Your task to perform on an android device: install app "Truecaller" Image 0: 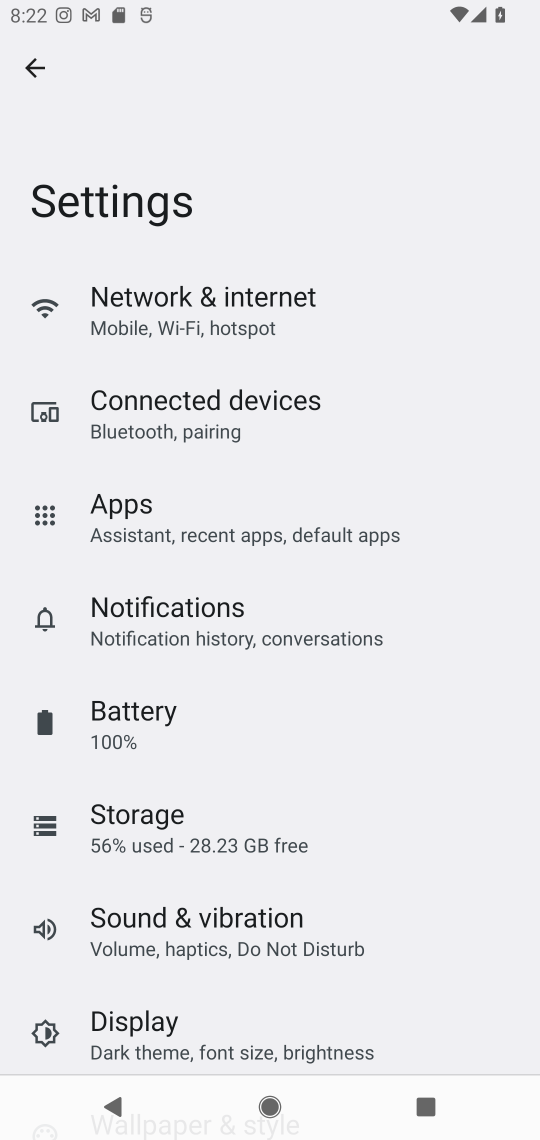
Step 0: press home button
Your task to perform on an android device: install app "Truecaller" Image 1: 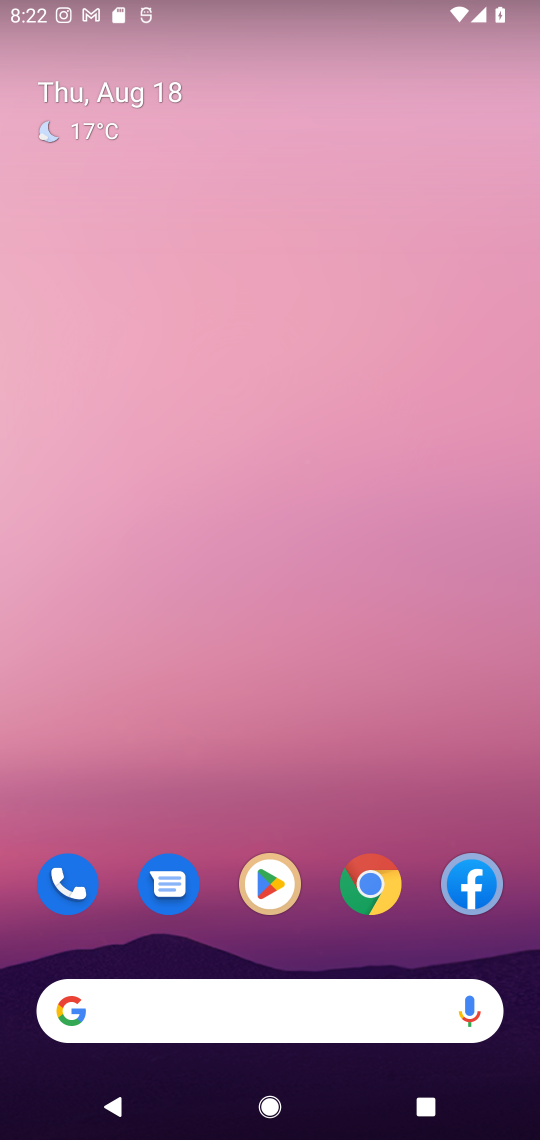
Step 1: drag from (264, 1014) to (273, 92)
Your task to perform on an android device: install app "Truecaller" Image 2: 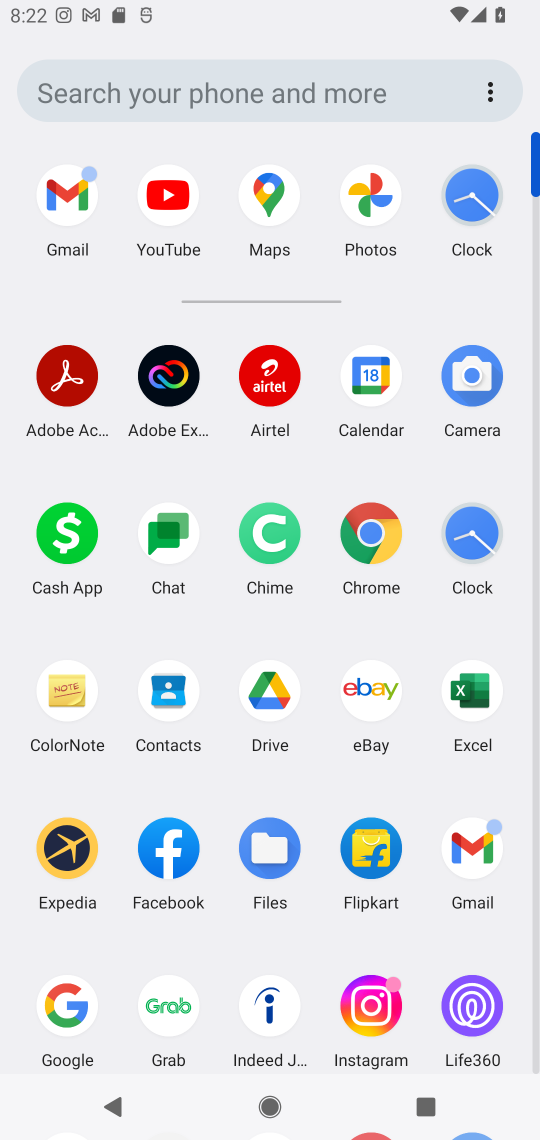
Step 2: drag from (304, 941) to (282, 294)
Your task to perform on an android device: install app "Truecaller" Image 3: 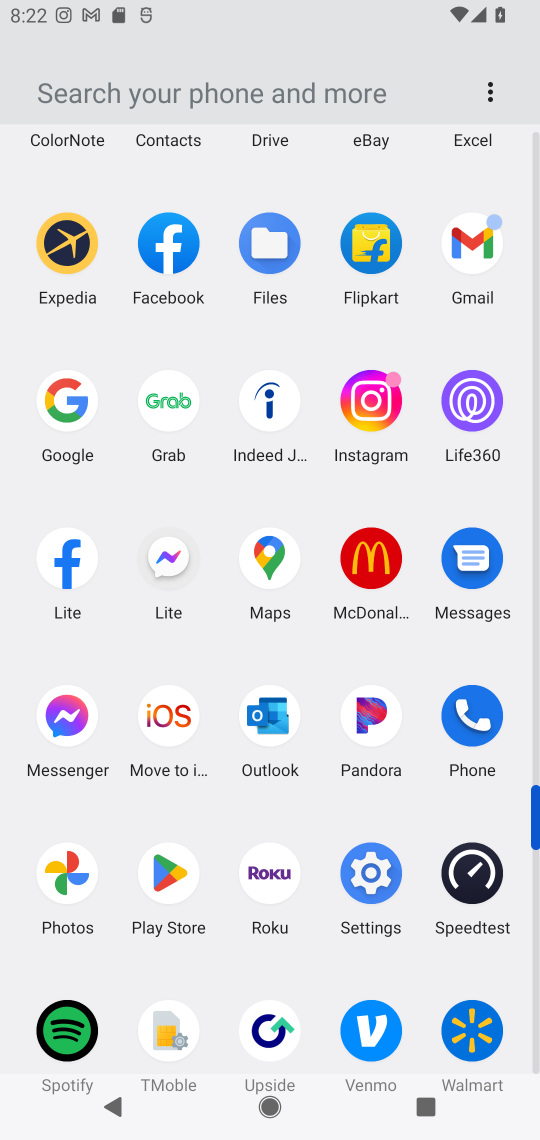
Step 3: click (180, 885)
Your task to perform on an android device: install app "Truecaller" Image 4: 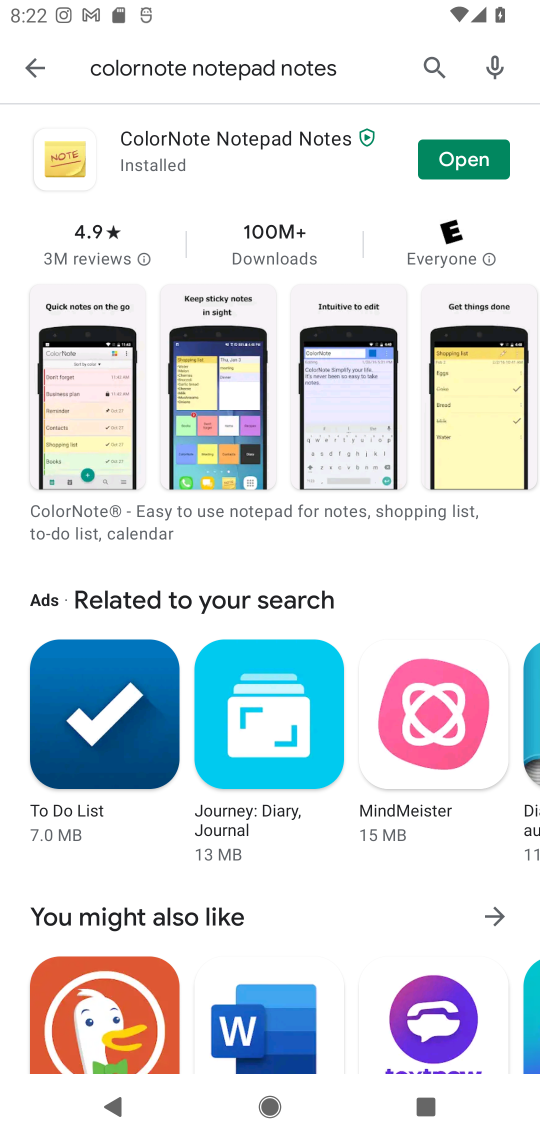
Step 4: press back button
Your task to perform on an android device: install app "Truecaller" Image 5: 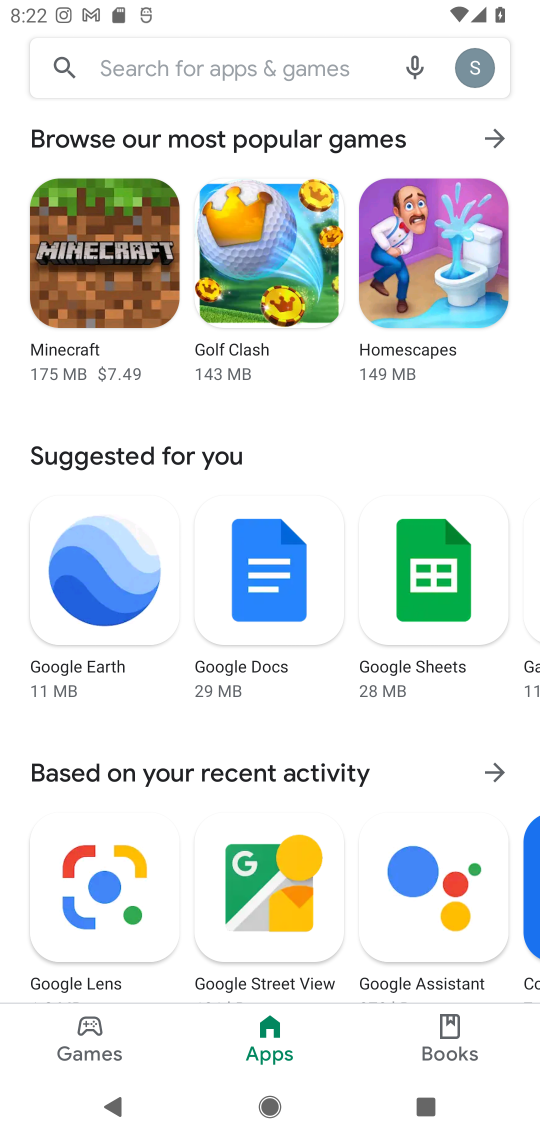
Step 5: click (271, 81)
Your task to perform on an android device: install app "Truecaller" Image 6: 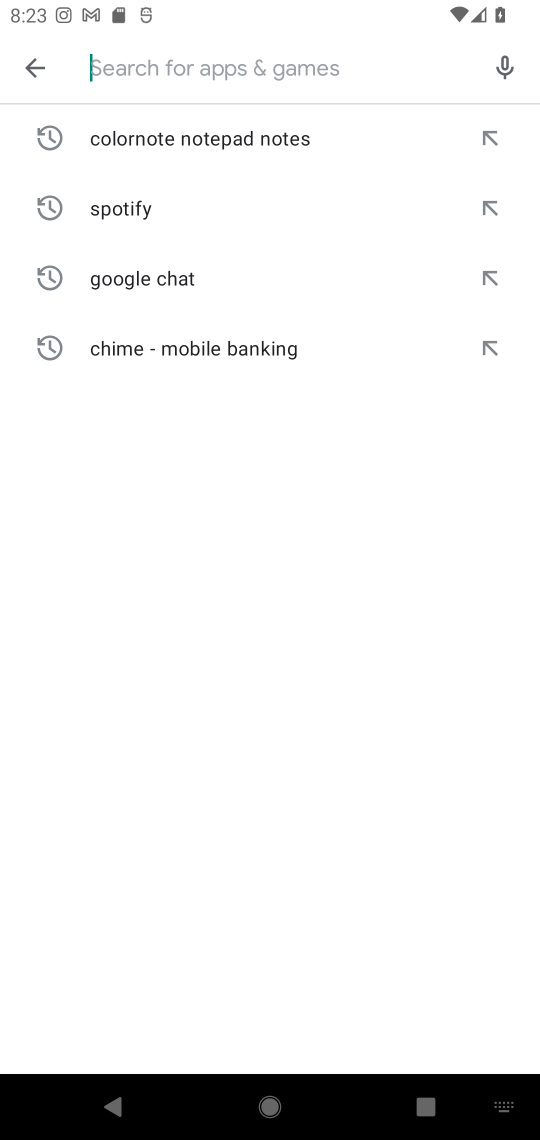
Step 6: type "Truecaller"
Your task to perform on an android device: install app "Truecaller" Image 7: 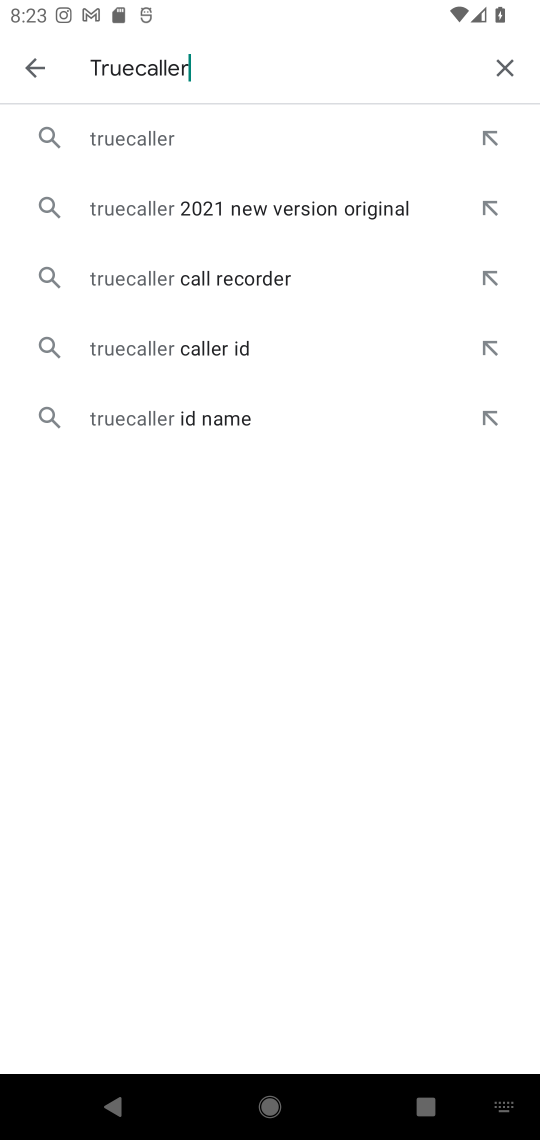
Step 7: click (150, 143)
Your task to perform on an android device: install app "Truecaller" Image 8: 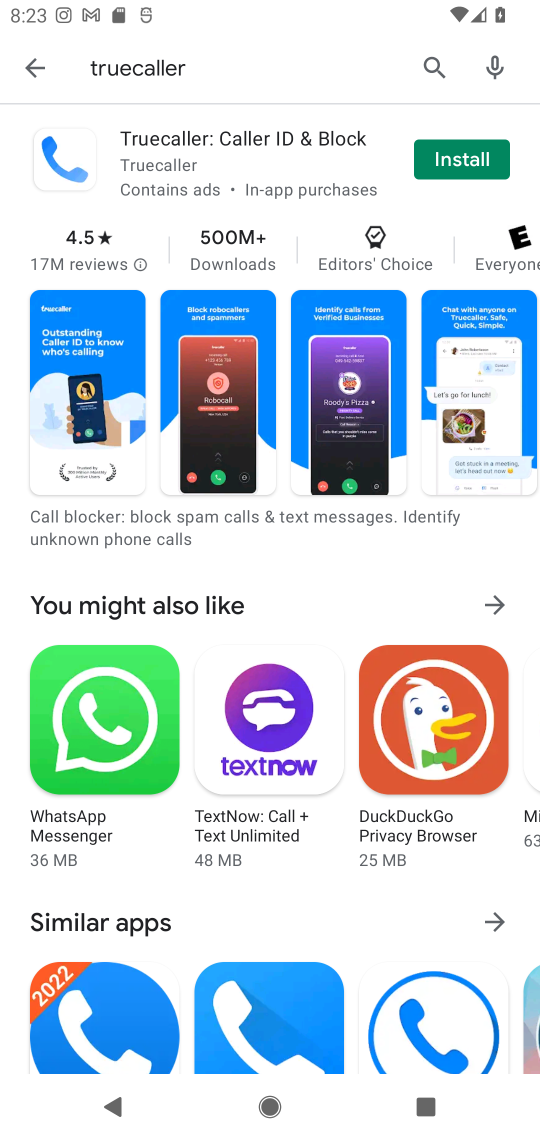
Step 8: click (449, 156)
Your task to perform on an android device: install app "Truecaller" Image 9: 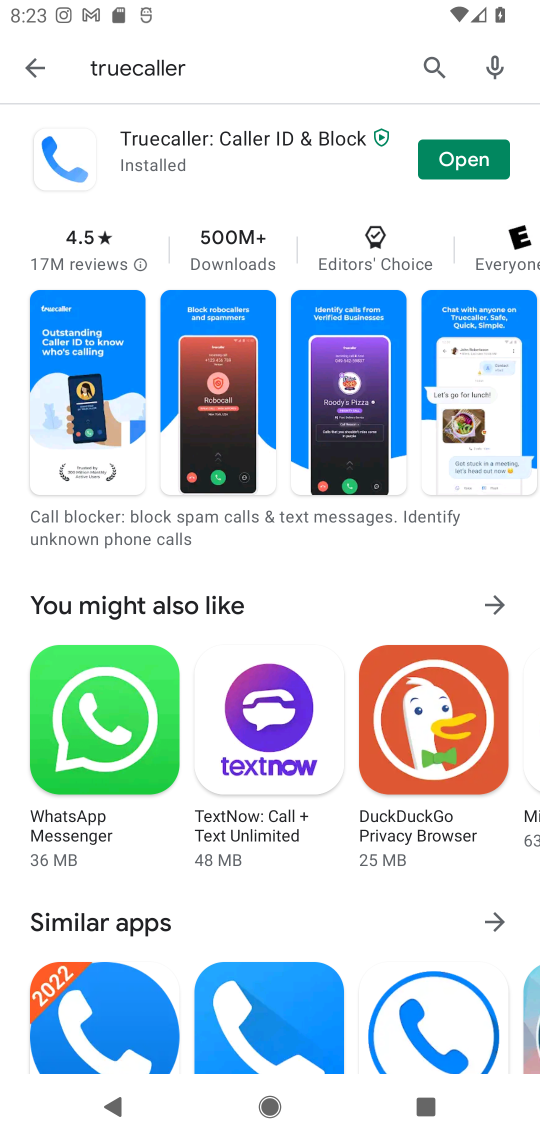
Step 9: task complete